Your task to perform on an android device: Open the stopwatch Image 0: 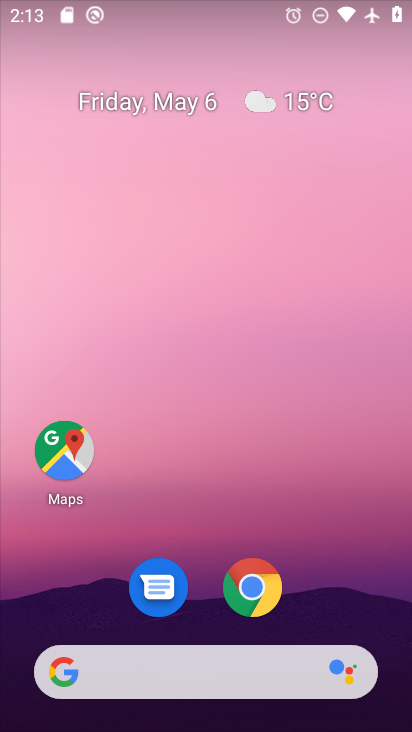
Step 0: drag from (331, 480) to (222, 97)
Your task to perform on an android device: Open the stopwatch Image 1: 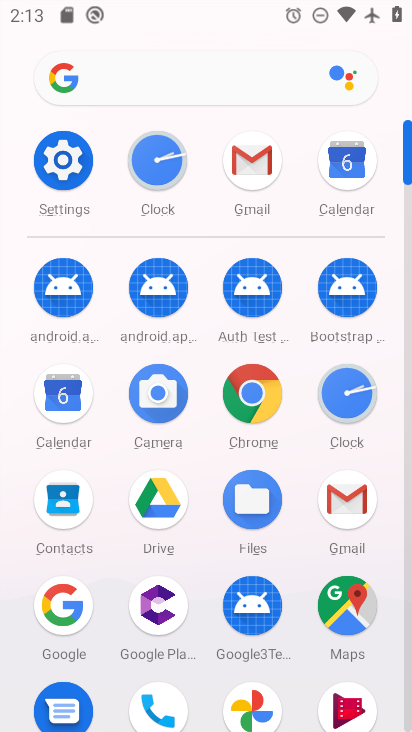
Step 1: click (155, 168)
Your task to perform on an android device: Open the stopwatch Image 2: 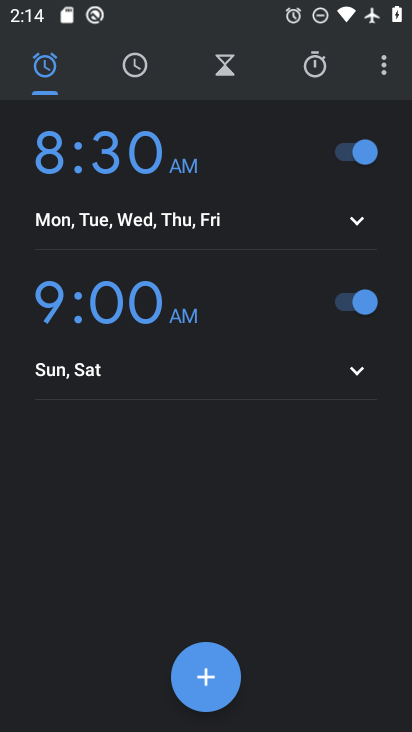
Step 2: click (318, 71)
Your task to perform on an android device: Open the stopwatch Image 3: 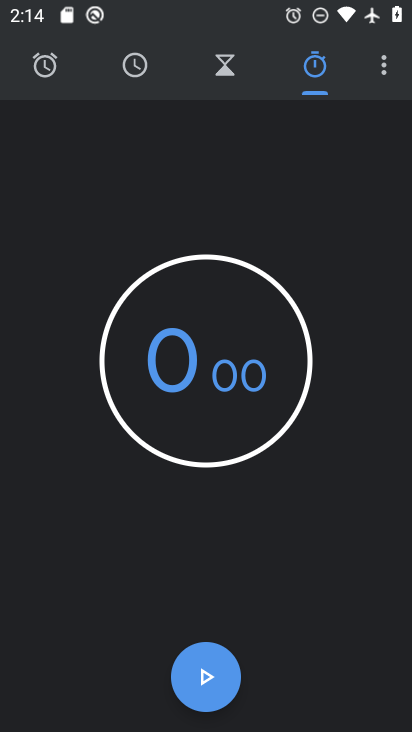
Step 3: task complete